Your task to perform on an android device: Open Google Maps and go to "Timeline" Image 0: 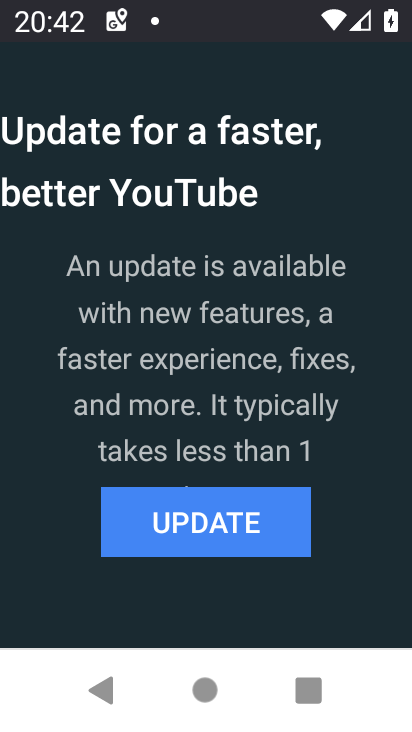
Step 0: task complete